Your task to perform on an android device: turn pop-ups on in chrome Image 0: 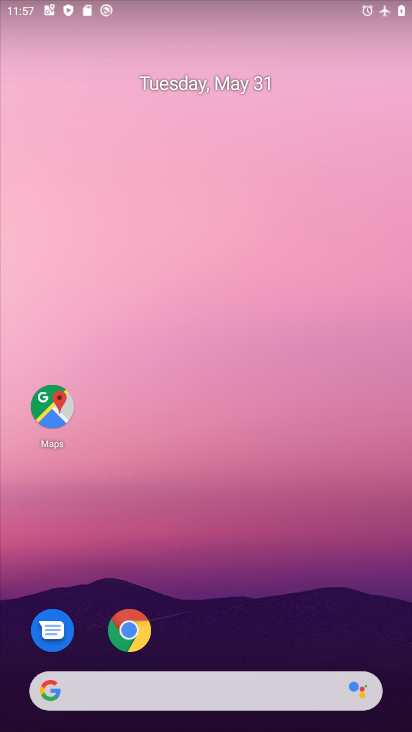
Step 0: click (129, 630)
Your task to perform on an android device: turn pop-ups on in chrome Image 1: 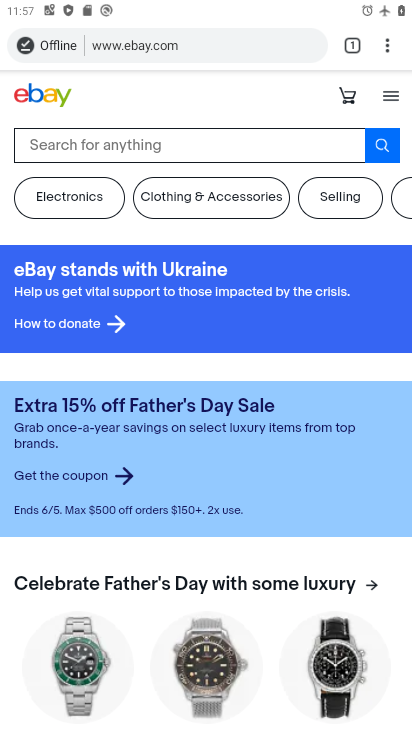
Step 1: click (387, 49)
Your task to perform on an android device: turn pop-ups on in chrome Image 2: 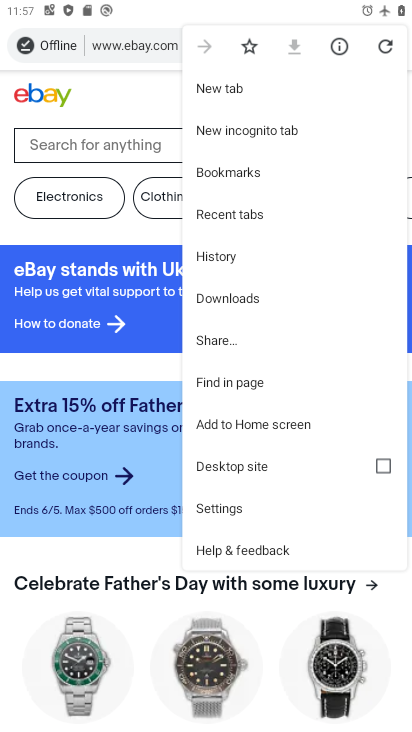
Step 2: click (228, 517)
Your task to perform on an android device: turn pop-ups on in chrome Image 3: 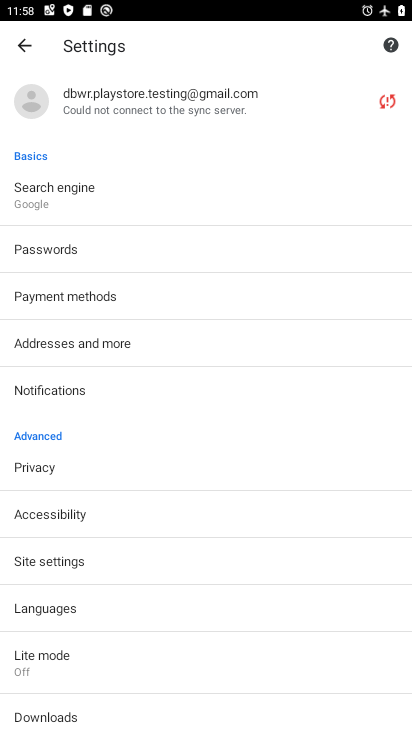
Step 3: click (64, 557)
Your task to perform on an android device: turn pop-ups on in chrome Image 4: 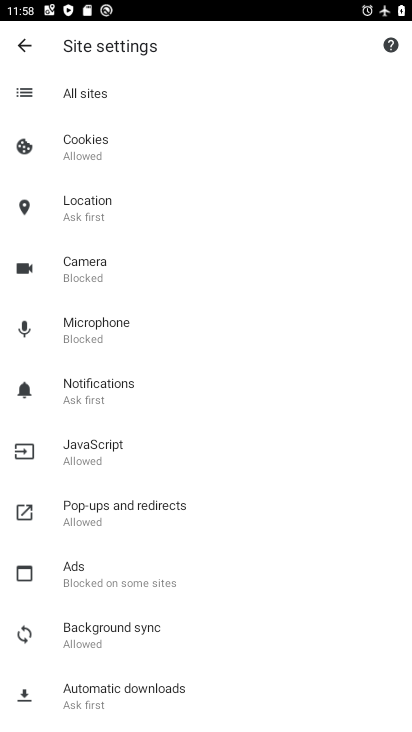
Step 4: click (105, 526)
Your task to perform on an android device: turn pop-ups on in chrome Image 5: 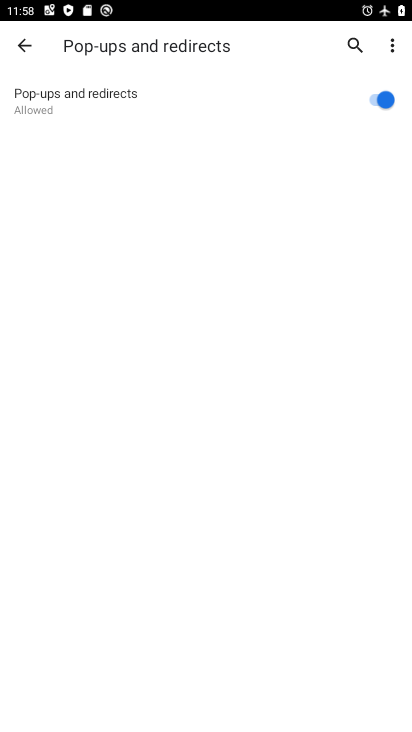
Step 5: task complete